Your task to perform on an android device: Go to Amazon Image 0: 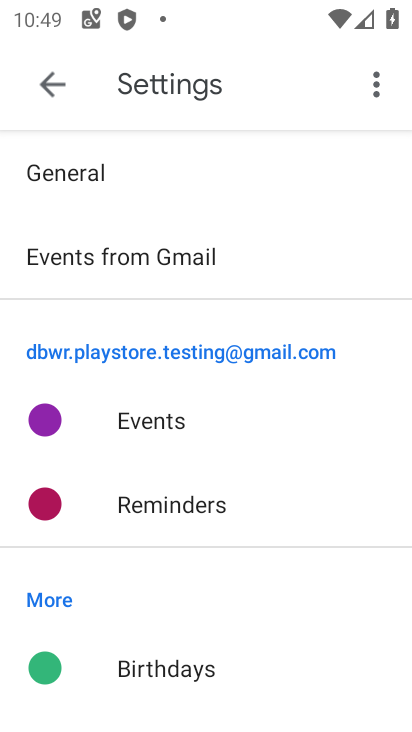
Step 0: press home button
Your task to perform on an android device: Go to Amazon Image 1: 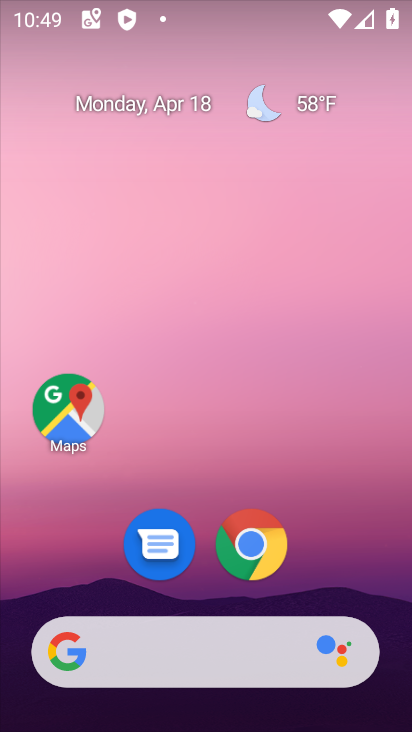
Step 1: click (256, 540)
Your task to perform on an android device: Go to Amazon Image 2: 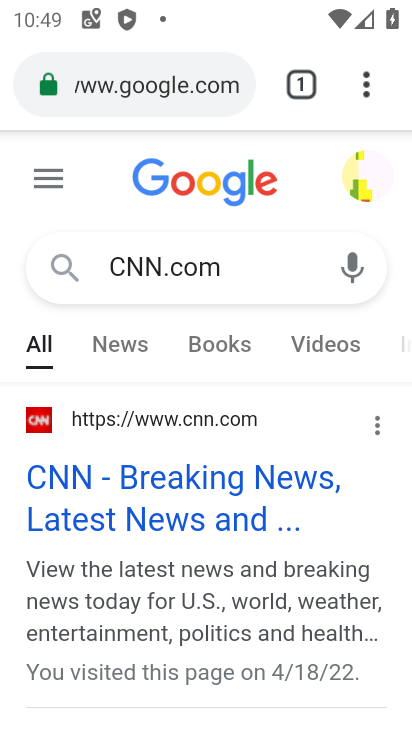
Step 2: click (215, 89)
Your task to perform on an android device: Go to Amazon Image 3: 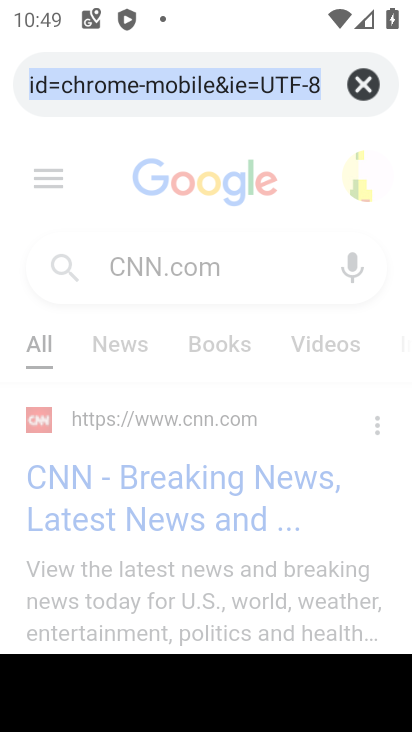
Step 3: click (353, 87)
Your task to perform on an android device: Go to Amazon Image 4: 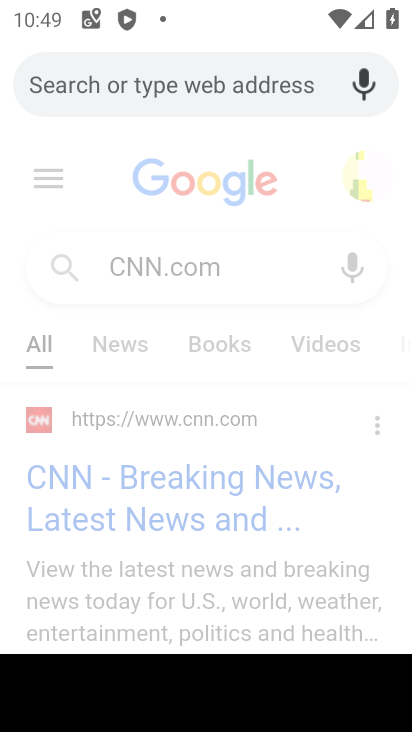
Step 4: click (235, 96)
Your task to perform on an android device: Go to Amazon Image 5: 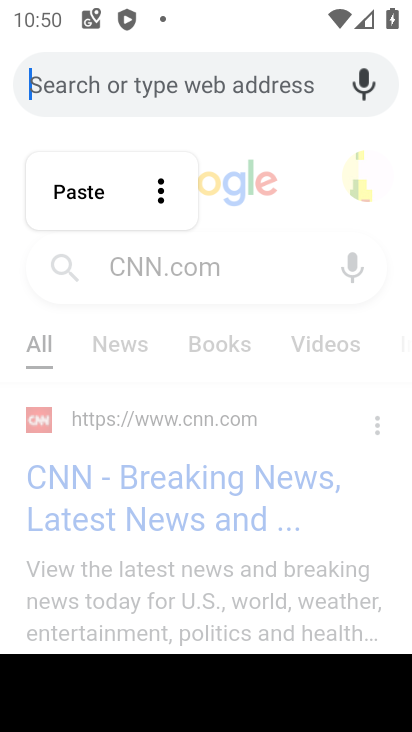
Step 5: type "Amazon"
Your task to perform on an android device: Go to Amazon Image 6: 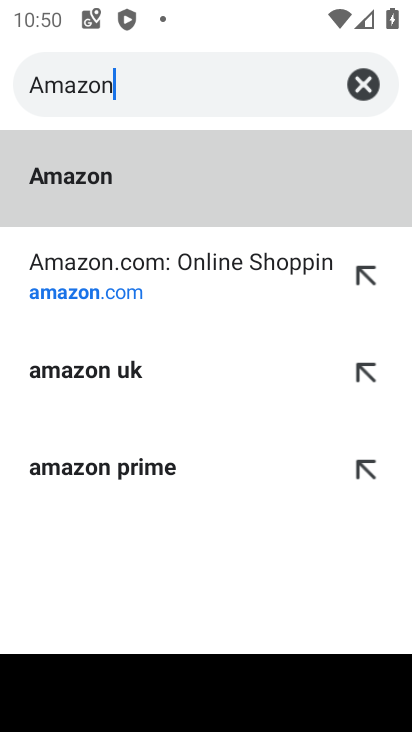
Step 6: type ""
Your task to perform on an android device: Go to Amazon Image 7: 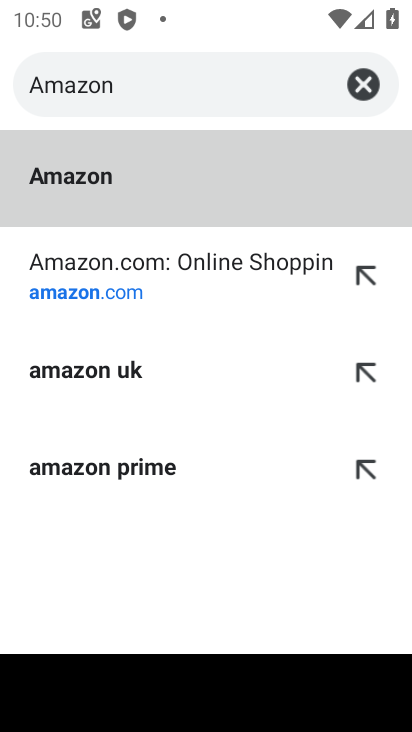
Step 7: click (86, 181)
Your task to perform on an android device: Go to Amazon Image 8: 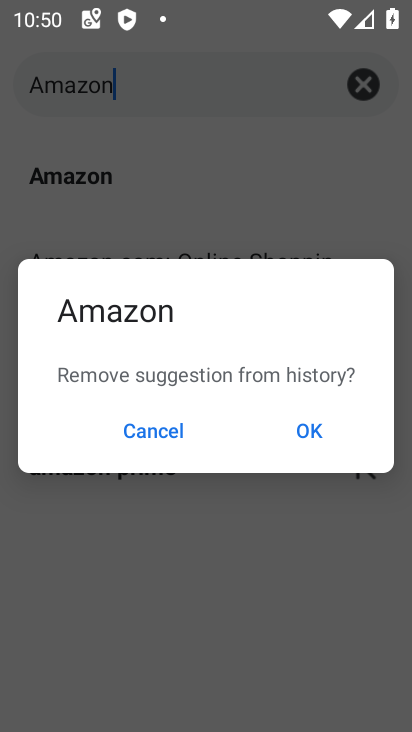
Step 8: click (328, 429)
Your task to perform on an android device: Go to Amazon Image 9: 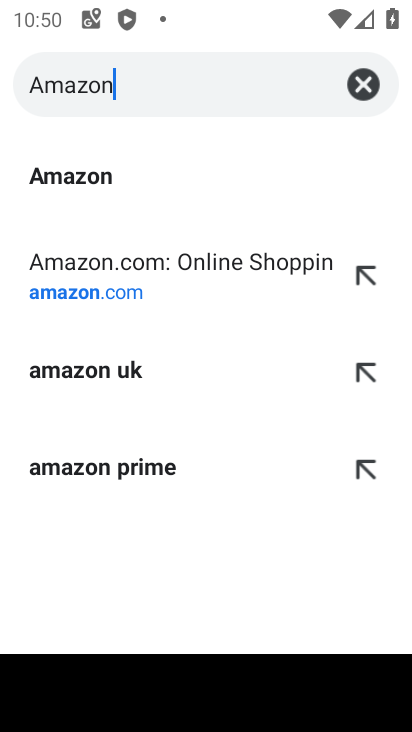
Step 9: click (87, 169)
Your task to perform on an android device: Go to Amazon Image 10: 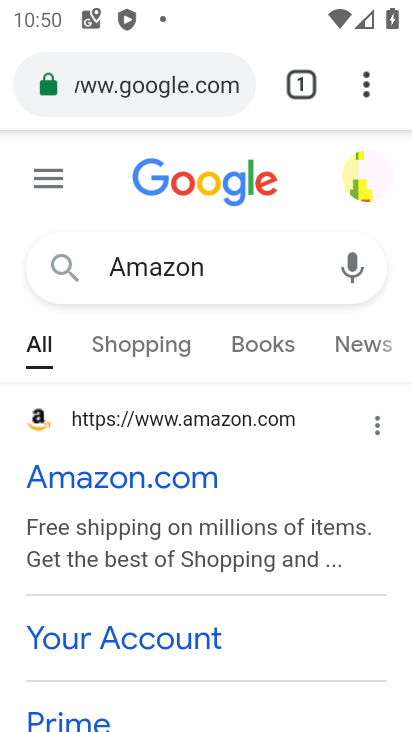
Step 10: task complete